Your task to perform on an android device: make emails show in primary in the gmail app Image 0: 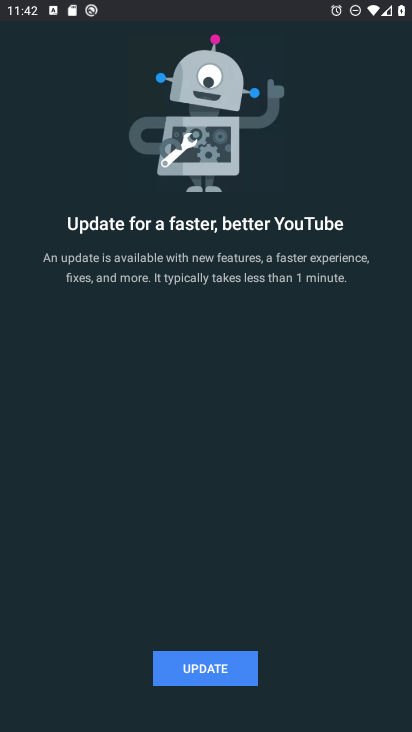
Step 0: press home button
Your task to perform on an android device: make emails show in primary in the gmail app Image 1: 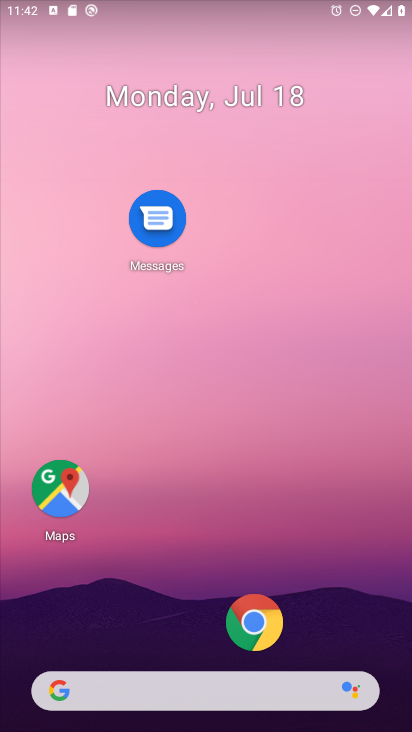
Step 1: drag from (199, 678) to (239, 139)
Your task to perform on an android device: make emails show in primary in the gmail app Image 2: 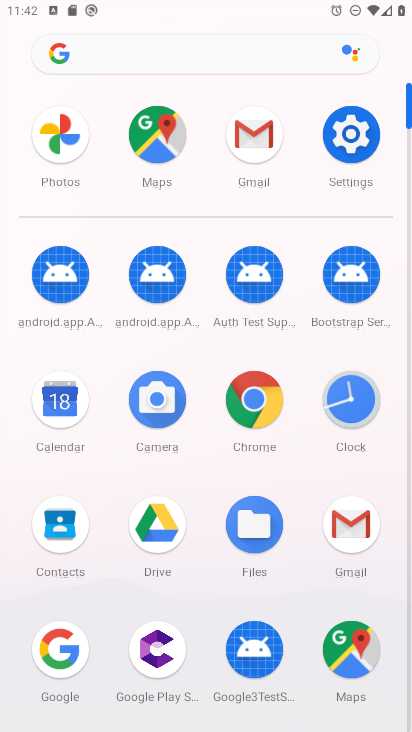
Step 2: click (361, 540)
Your task to perform on an android device: make emails show in primary in the gmail app Image 3: 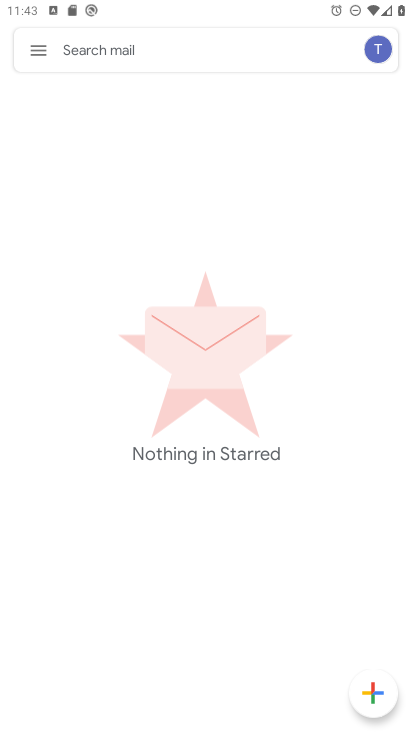
Step 3: click (31, 56)
Your task to perform on an android device: make emails show in primary in the gmail app Image 4: 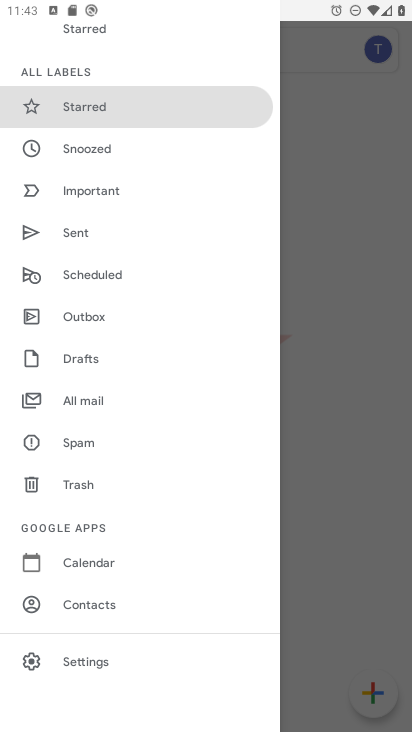
Step 4: click (76, 403)
Your task to perform on an android device: make emails show in primary in the gmail app Image 5: 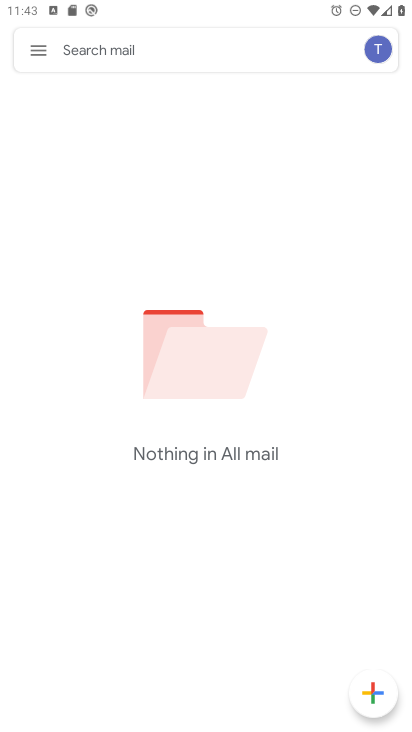
Step 5: task complete